Your task to perform on an android device: Open Chrome and go to settings Image 0: 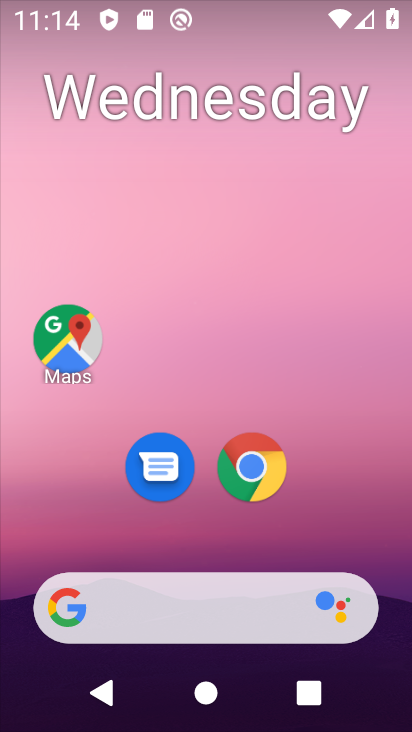
Step 0: click (269, 480)
Your task to perform on an android device: Open Chrome and go to settings Image 1: 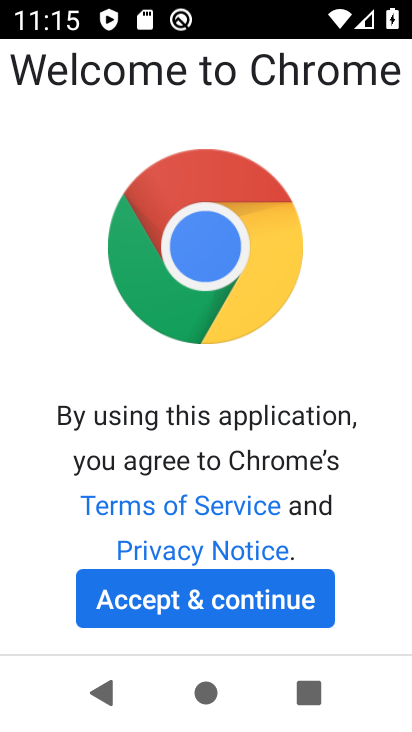
Step 1: click (223, 608)
Your task to perform on an android device: Open Chrome and go to settings Image 2: 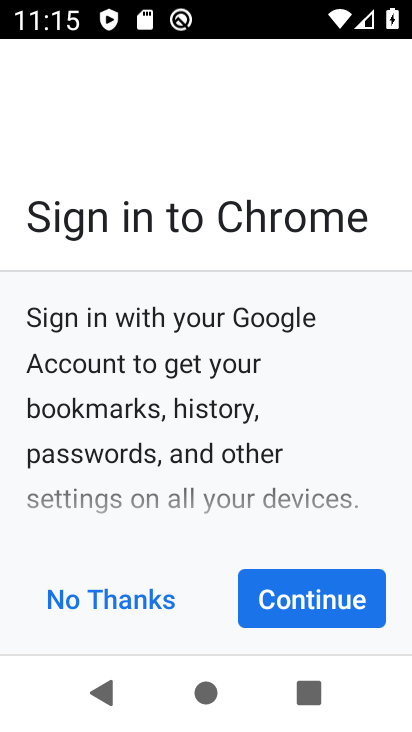
Step 2: click (306, 585)
Your task to perform on an android device: Open Chrome and go to settings Image 3: 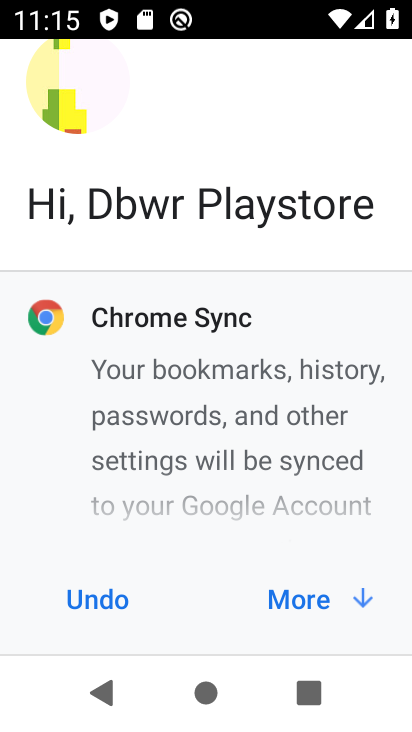
Step 3: click (307, 587)
Your task to perform on an android device: Open Chrome and go to settings Image 4: 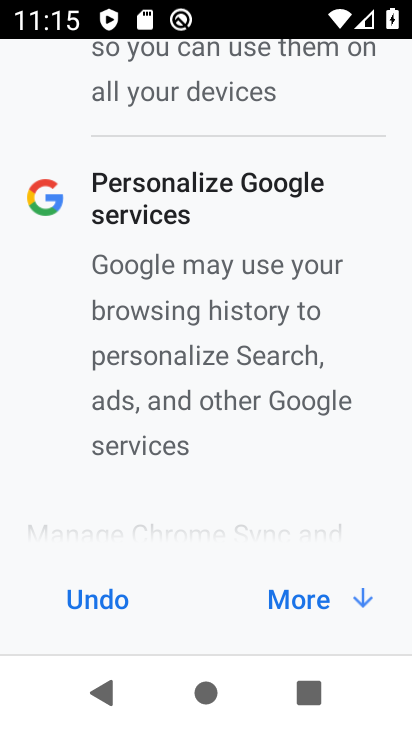
Step 4: click (331, 607)
Your task to perform on an android device: Open Chrome and go to settings Image 5: 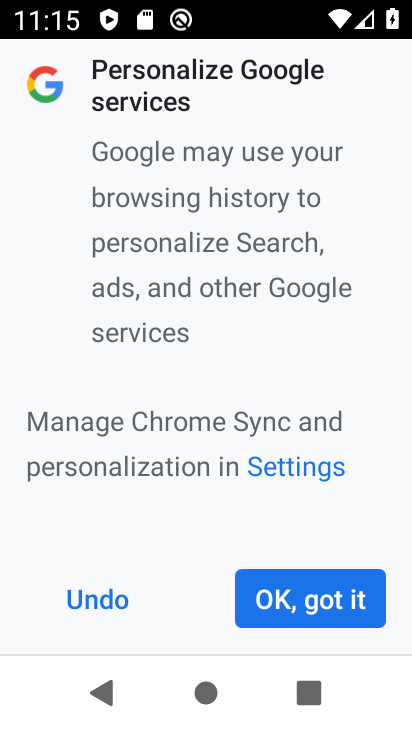
Step 5: click (331, 607)
Your task to perform on an android device: Open Chrome and go to settings Image 6: 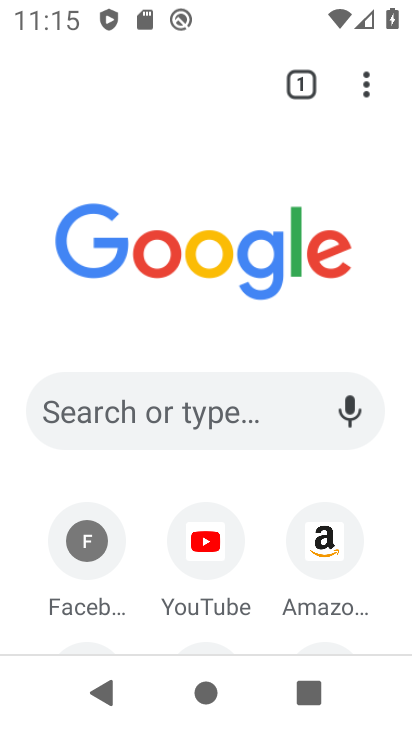
Step 6: click (365, 89)
Your task to perform on an android device: Open Chrome and go to settings Image 7: 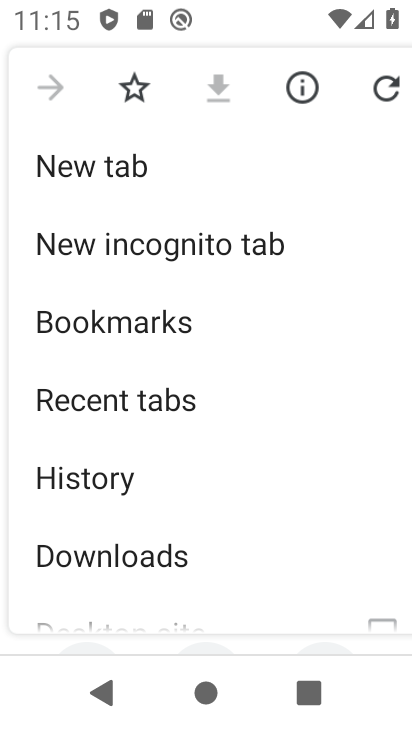
Step 7: drag from (221, 587) to (183, 253)
Your task to perform on an android device: Open Chrome and go to settings Image 8: 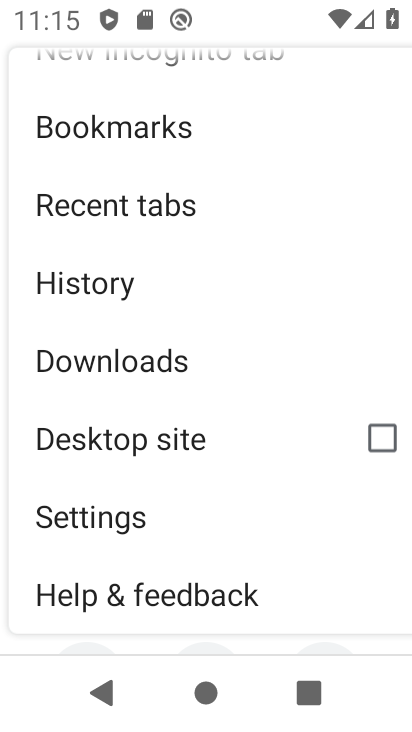
Step 8: click (174, 509)
Your task to perform on an android device: Open Chrome and go to settings Image 9: 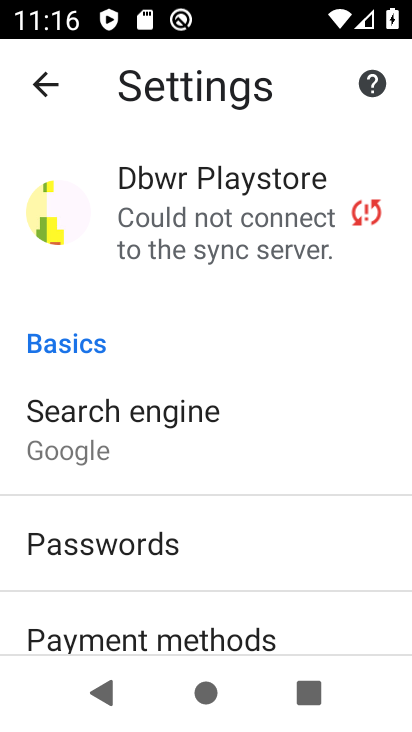
Step 9: task complete